Your task to perform on an android device: change timer sound Image 0: 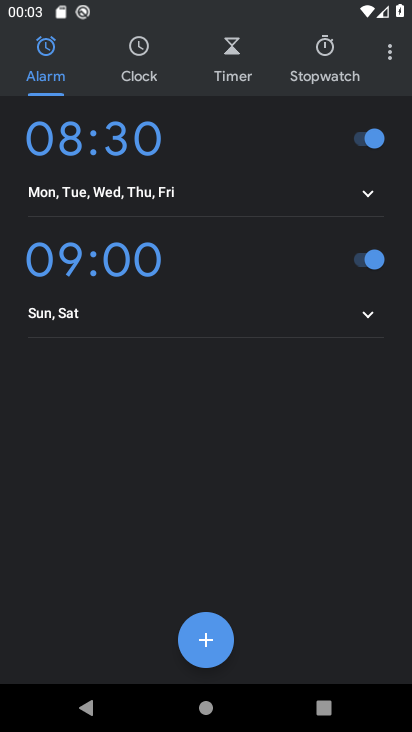
Step 0: click (235, 78)
Your task to perform on an android device: change timer sound Image 1: 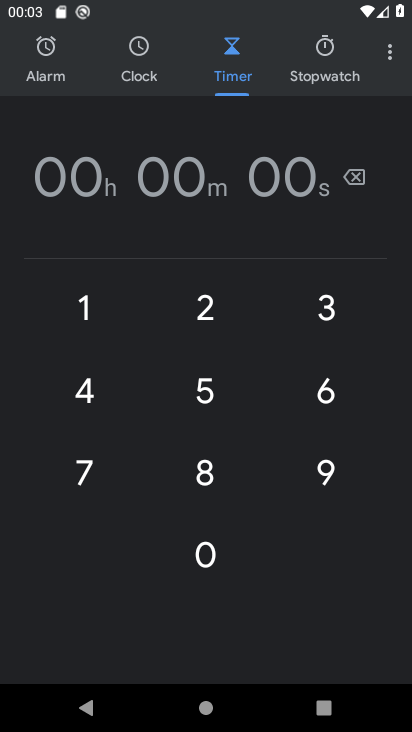
Step 1: click (219, 300)
Your task to perform on an android device: change timer sound Image 2: 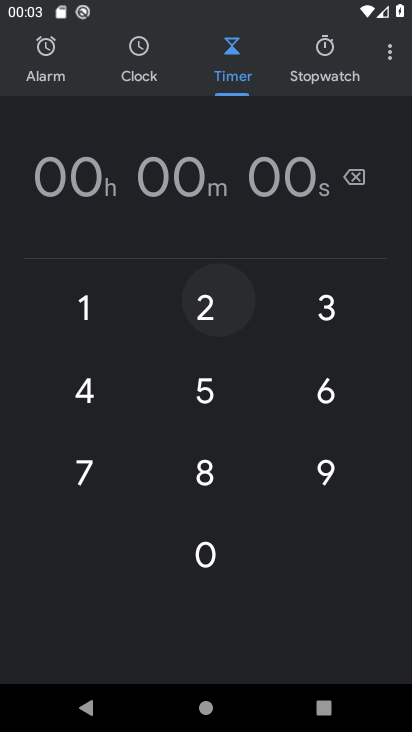
Step 2: click (213, 370)
Your task to perform on an android device: change timer sound Image 3: 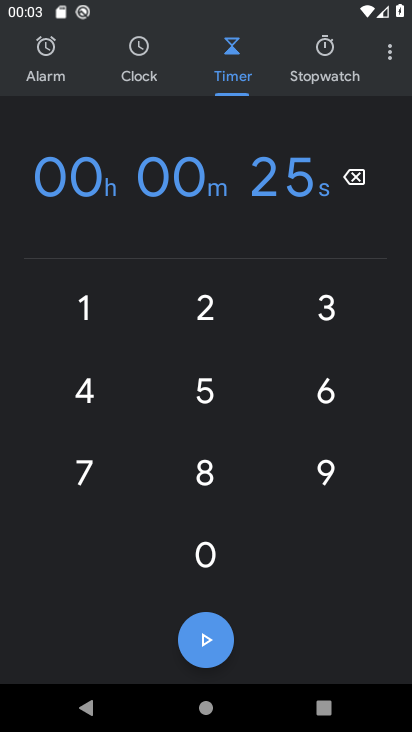
Step 3: click (318, 414)
Your task to perform on an android device: change timer sound Image 4: 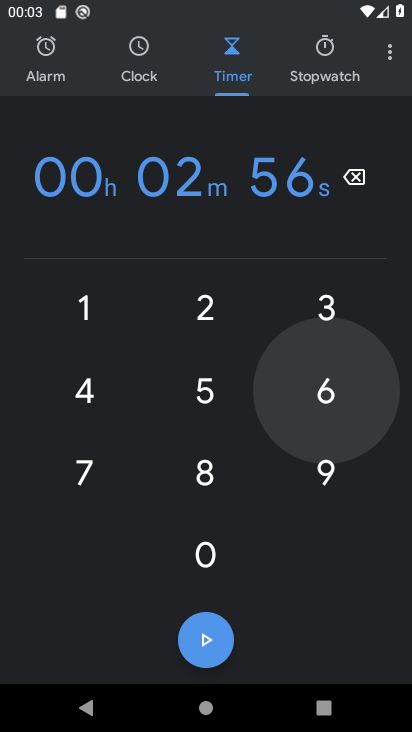
Step 4: click (191, 634)
Your task to perform on an android device: change timer sound Image 5: 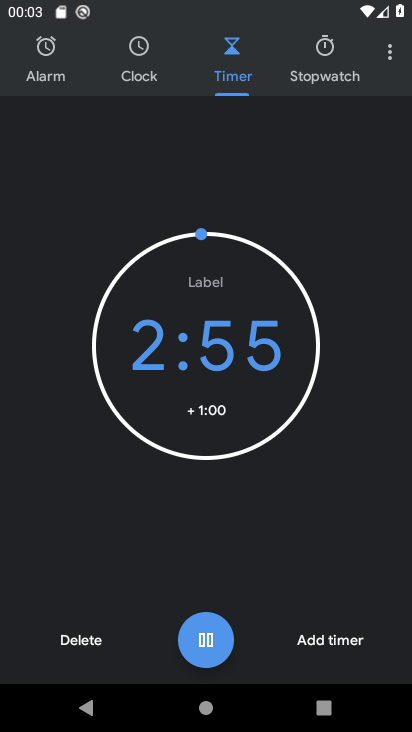
Step 5: task complete